Your task to perform on an android device: Open privacy settings Image 0: 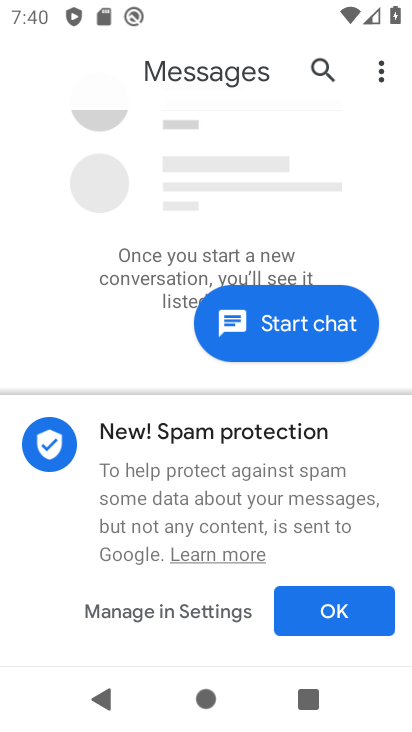
Step 0: press home button
Your task to perform on an android device: Open privacy settings Image 1: 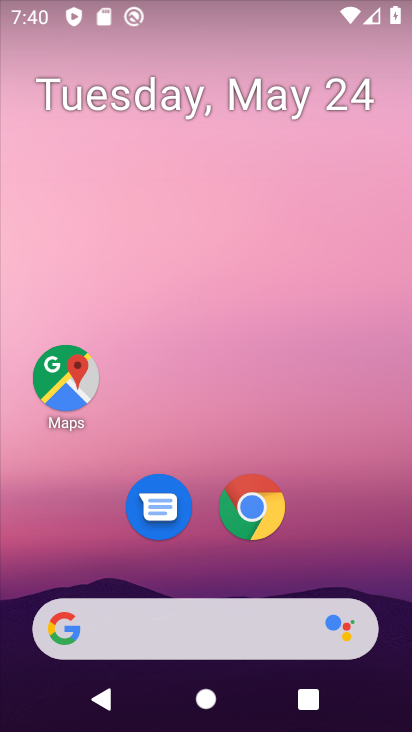
Step 1: drag from (173, 617) to (332, 78)
Your task to perform on an android device: Open privacy settings Image 2: 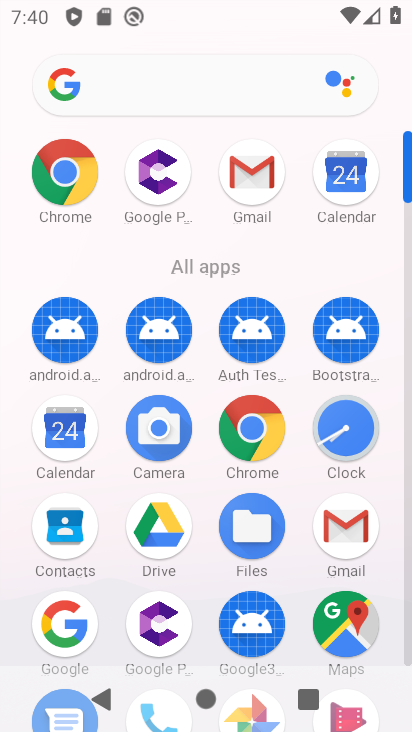
Step 2: drag from (205, 622) to (335, 285)
Your task to perform on an android device: Open privacy settings Image 3: 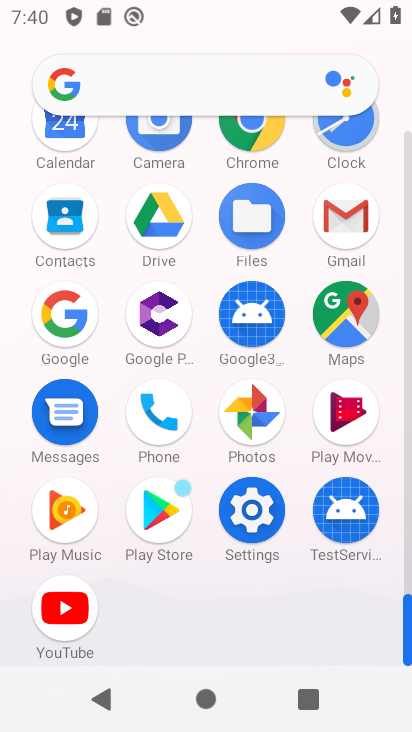
Step 3: click (254, 512)
Your task to perform on an android device: Open privacy settings Image 4: 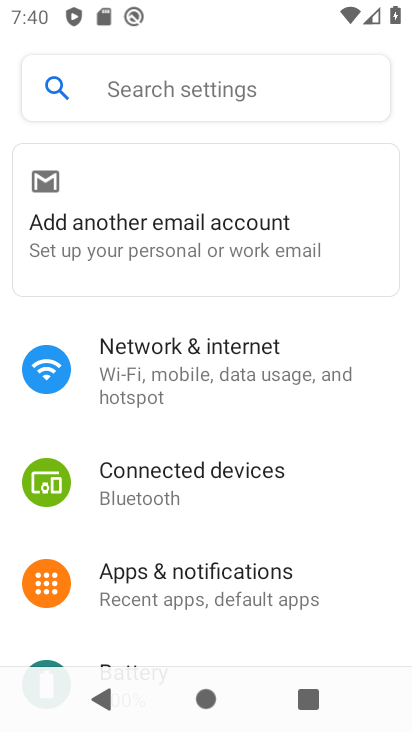
Step 4: drag from (232, 551) to (315, 124)
Your task to perform on an android device: Open privacy settings Image 5: 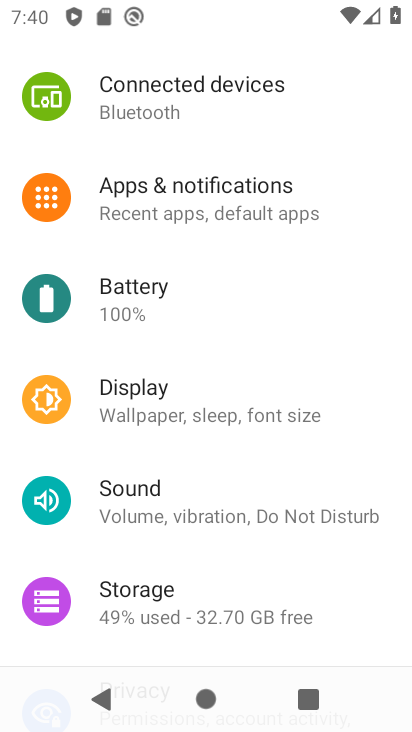
Step 5: drag from (230, 566) to (318, 237)
Your task to perform on an android device: Open privacy settings Image 6: 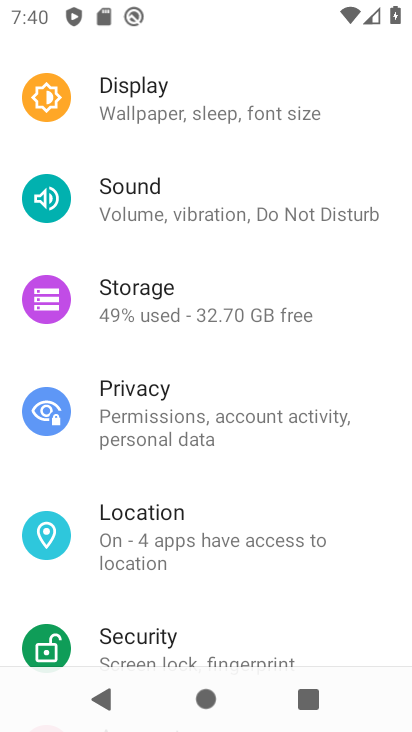
Step 6: click (139, 389)
Your task to perform on an android device: Open privacy settings Image 7: 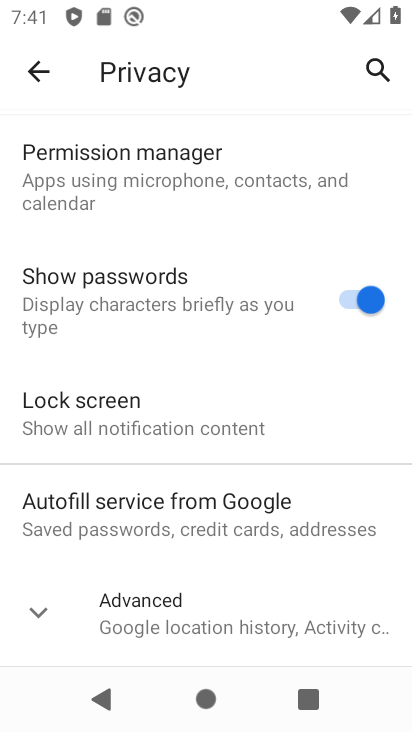
Step 7: task complete